Your task to perform on an android device: turn on translation in the chrome app Image 0: 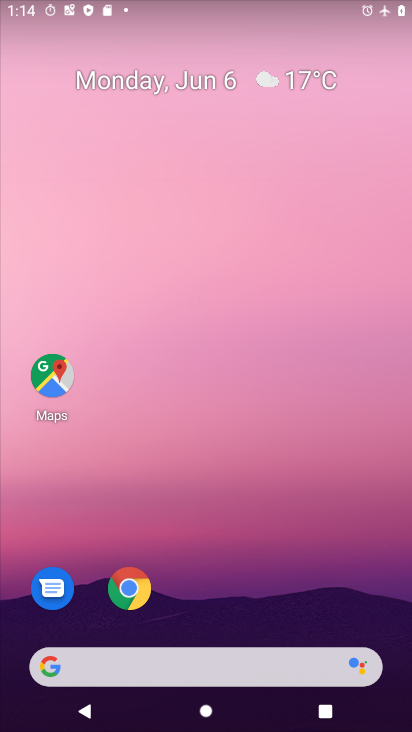
Step 0: click (127, 582)
Your task to perform on an android device: turn on translation in the chrome app Image 1: 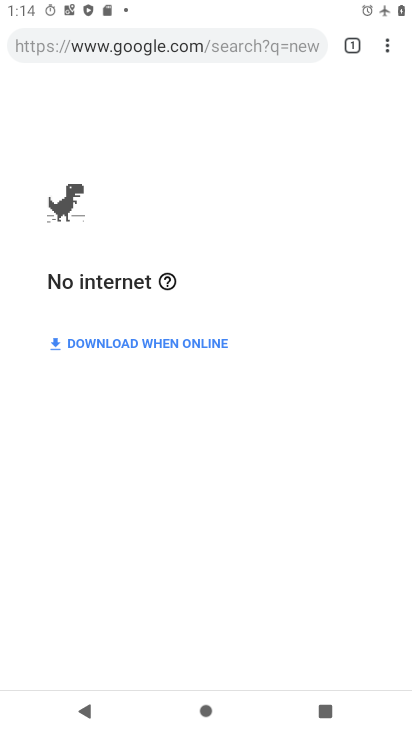
Step 1: drag from (388, 44) to (276, 499)
Your task to perform on an android device: turn on translation in the chrome app Image 2: 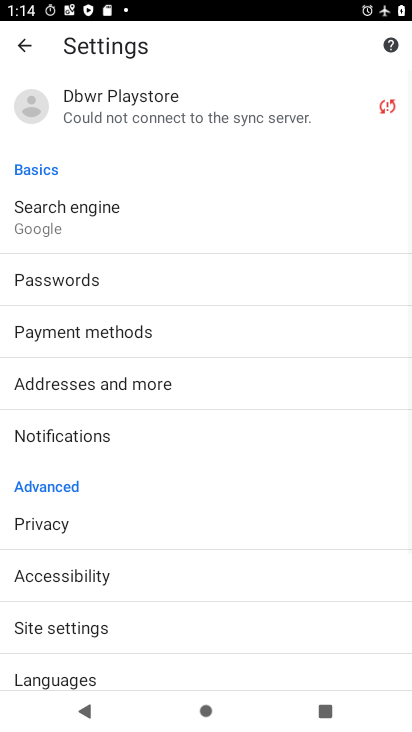
Step 2: drag from (158, 480) to (165, 172)
Your task to perform on an android device: turn on translation in the chrome app Image 3: 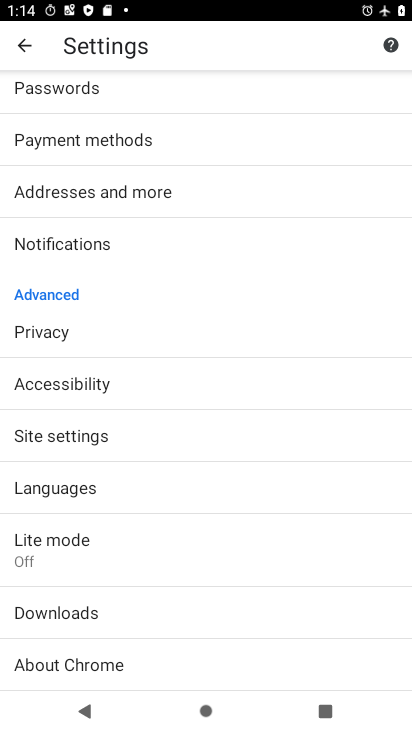
Step 3: click (83, 486)
Your task to perform on an android device: turn on translation in the chrome app Image 4: 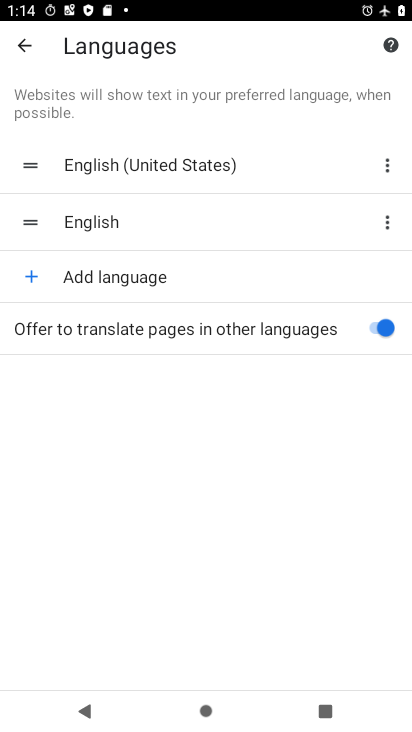
Step 4: task complete